Your task to perform on an android device: Set the phone to "Do not disturb". Image 0: 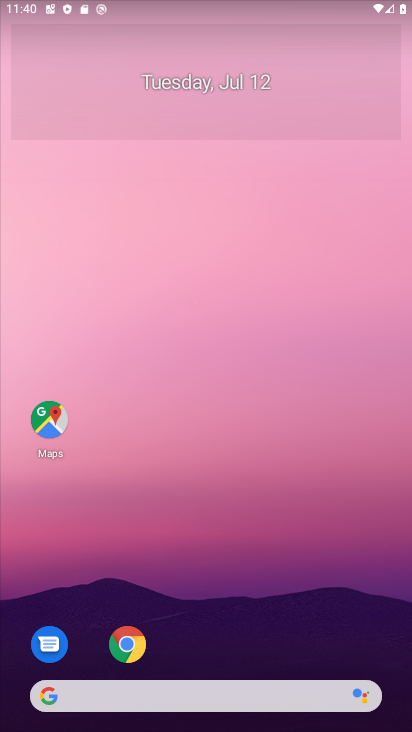
Step 0: drag from (197, 700) to (339, 231)
Your task to perform on an android device: Set the phone to "Do not disturb". Image 1: 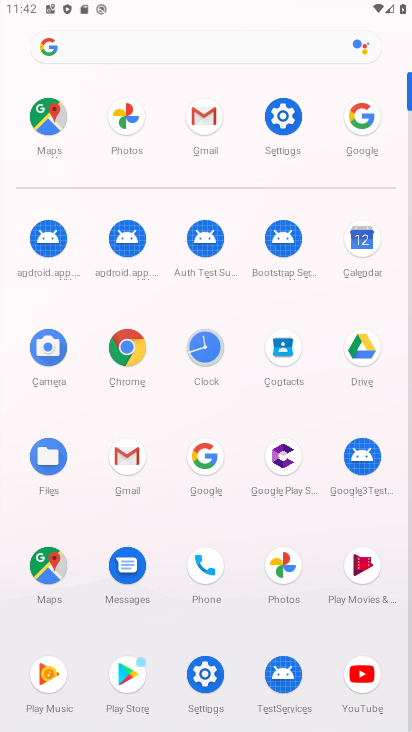
Step 1: click (281, 114)
Your task to perform on an android device: Set the phone to "Do not disturb". Image 2: 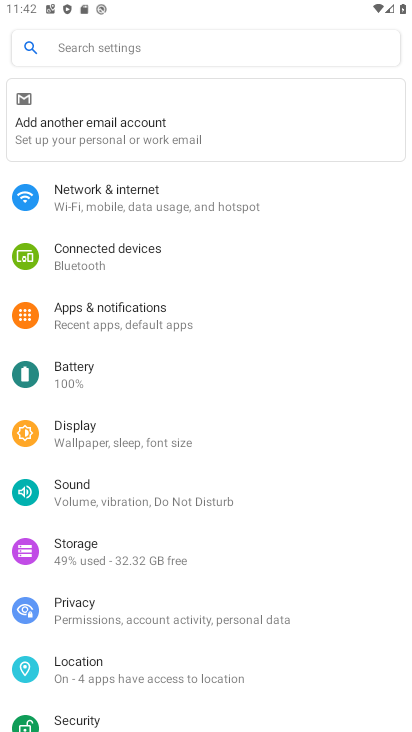
Step 2: click (248, 496)
Your task to perform on an android device: Set the phone to "Do not disturb". Image 3: 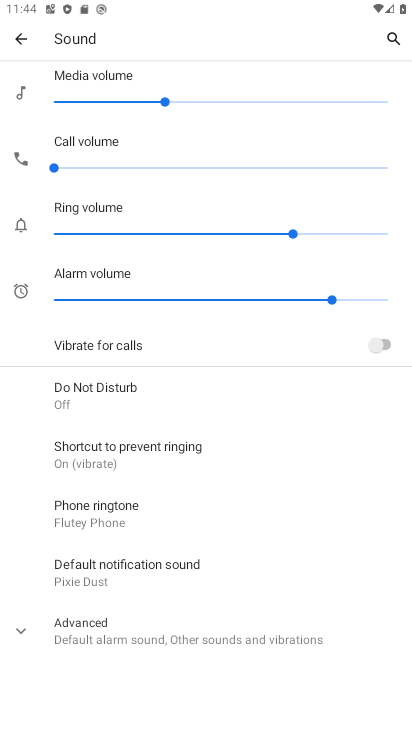
Step 3: drag from (328, 297) to (269, 303)
Your task to perform on an android device: Set the phone to "Do not disturb". Image 4: 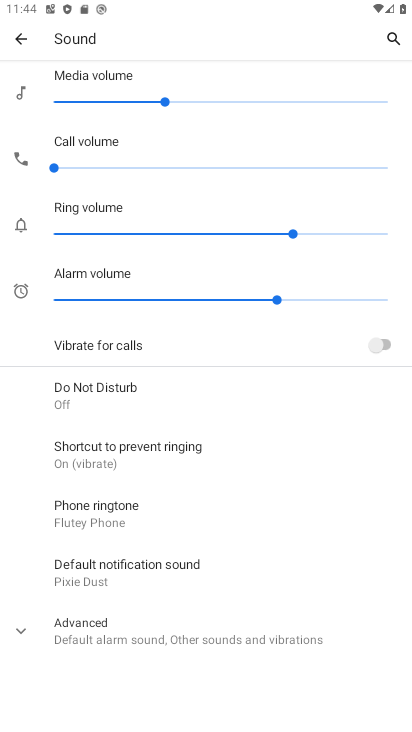
Step 4: click (153, 395)
Your task to perform on an android device: Set the phone to "Do not disturb". Image 5: 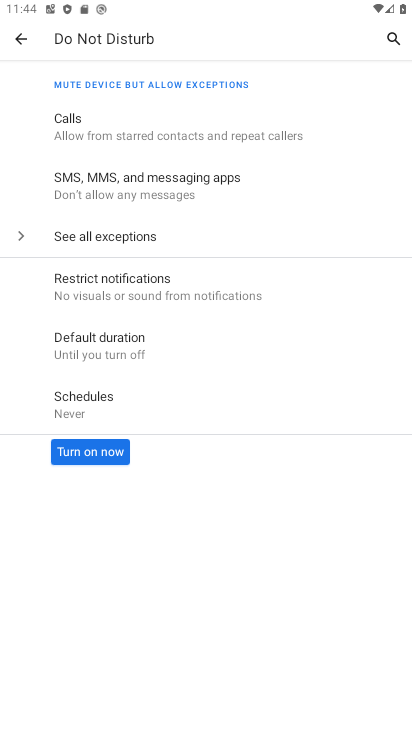
Step 5: click (98, 457)
Your task to perform on an android device: Set the phone to "Do not disturb". Image 6: 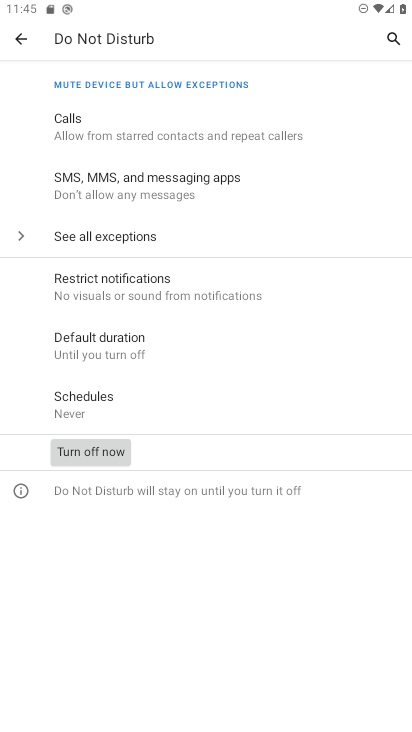
Step 6: task complete